Your task to perform on an android device: Go to internet settings Image 0: 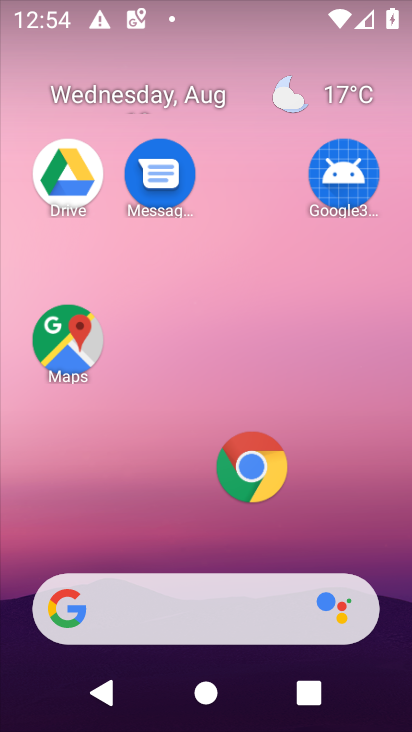
Step 0: drag from (205, 16) to (154, 630)
Your task to perform on an android device: Go to internet settings Image 1: 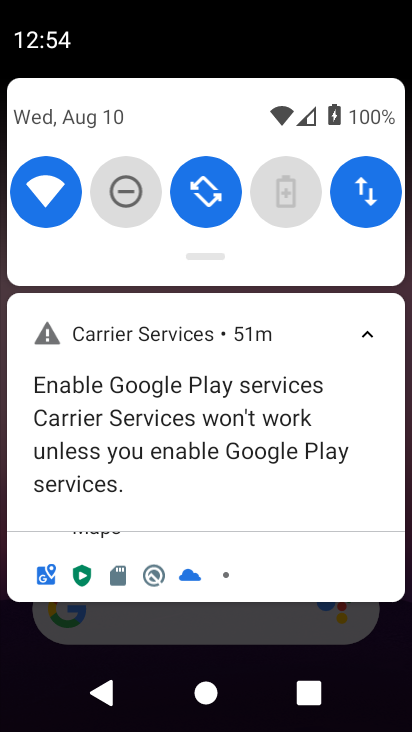
Step 1: click (367, 187)
Your task to perform on an android device: Go to internet settings Image 2: 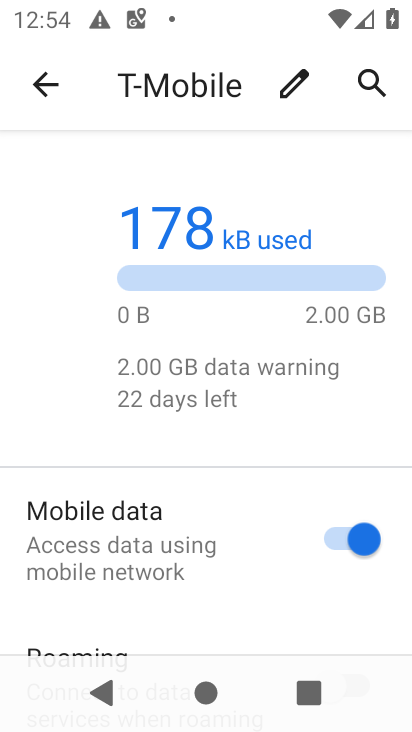
Step 2: task complete